Your task to perform on an android device: Open Yahoo.com Image 0: 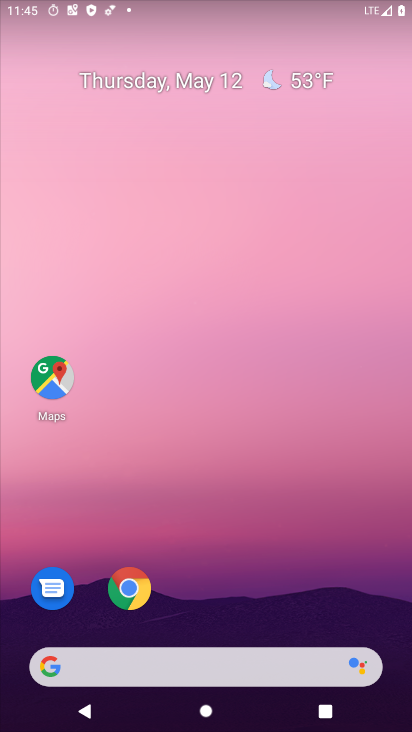
Step 0: click (131, 589)
Your task to perform on an android device: Open Yahoo.com Image 1: 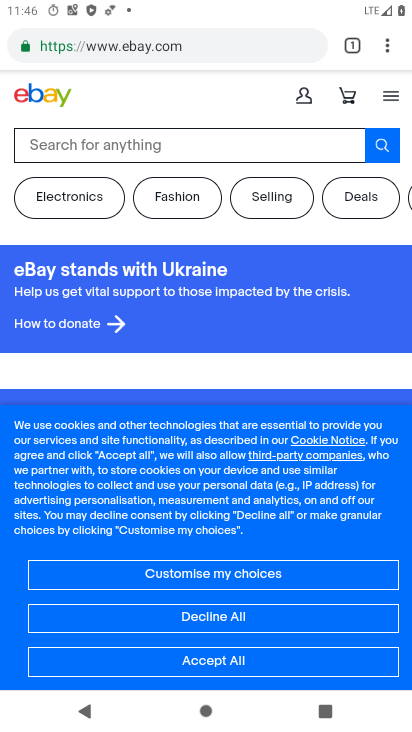
Step 1: click (207, 40)
Your task to perform on an android device: Open Yahoo.com Image 2: 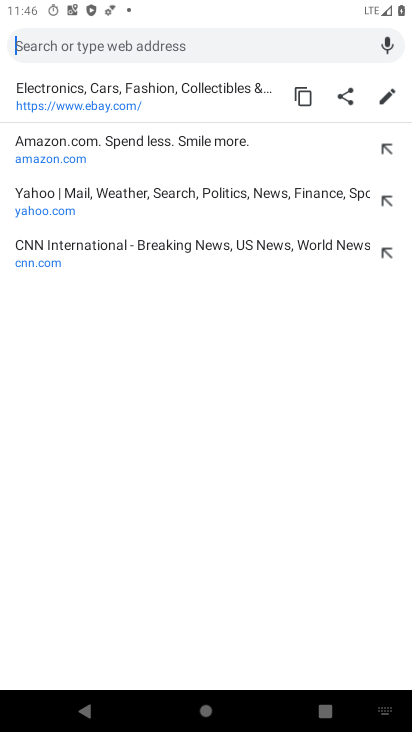
Step 2: click (27, 208)
Your task to perform on an android device: Open Yahoo.com Image 3: 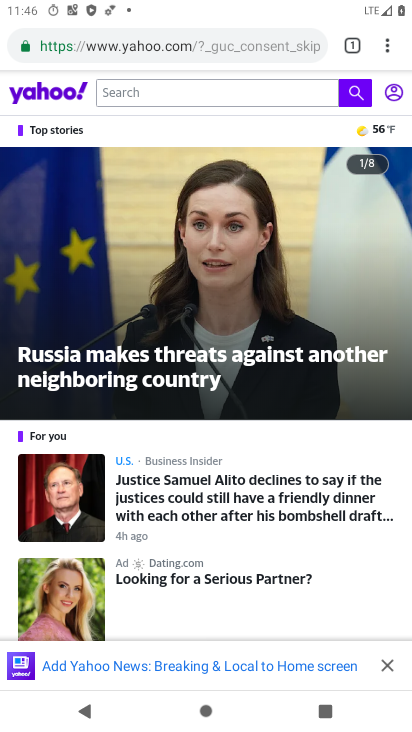
Step 3: task complete